Your task to perform on an android device: open a bookmark in the chrome app Image 0: 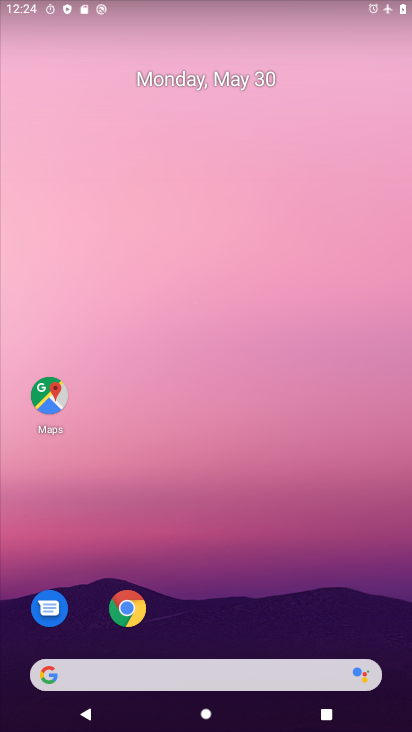
Step 0: click (133, 617)
Your task to perform on an android device: open a bookmark in the chrome app Image 1: 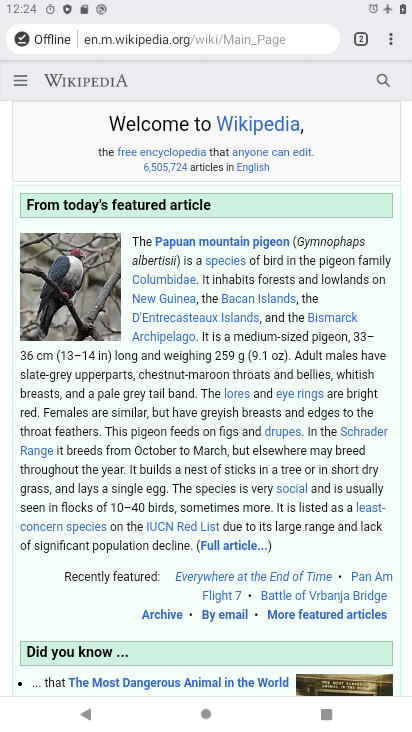
Step 1: click (384, 32)
Your task to perform on an android device: open a bookmark in the chrome app Image 2: 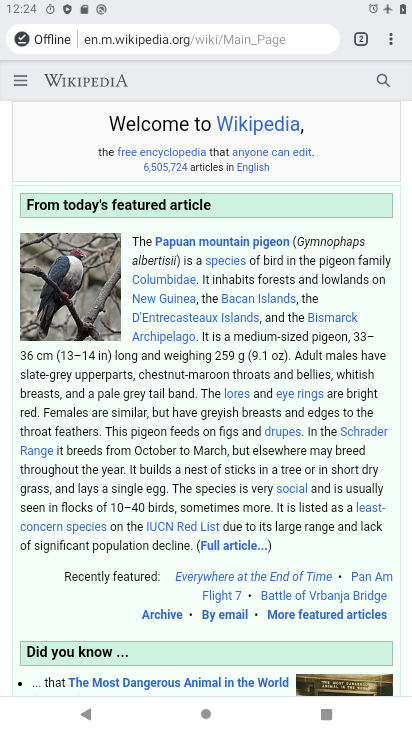
Step 2: task complete